Your task to perform on an android device: make emails show in primary in the gmail app Image 0: 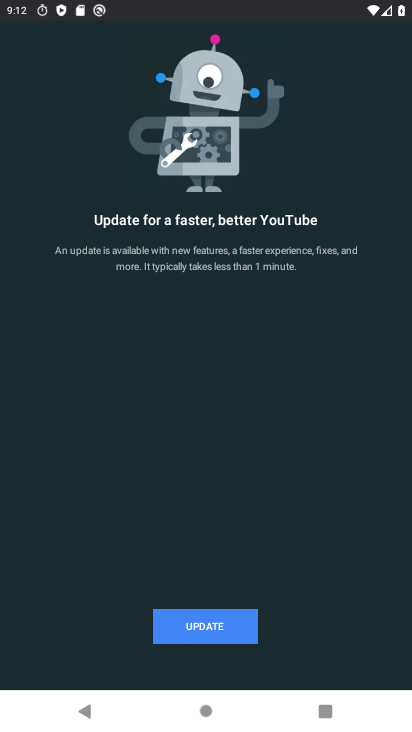
Step 0: press back button
Your task to perform on an android device: make emails show in primary in the gmail app Image 1: 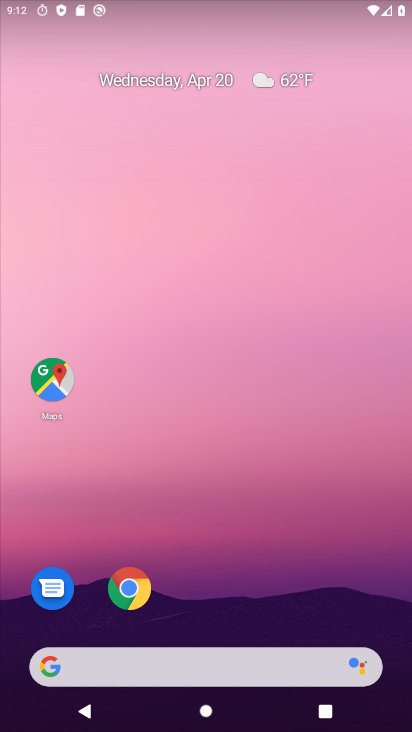
Step 1: drag from (202, 586) to (82, 20)
Your task to perform on an android device: make emails show in primary in the gmail app Image 2: 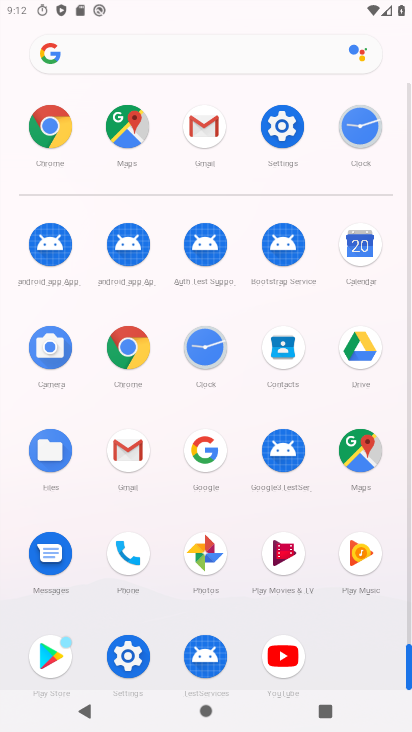
Step 2: drag from (2, 565) to (5, 285)
Your task to perform on an android device: make emails show in primary in the gmail app Image 3: 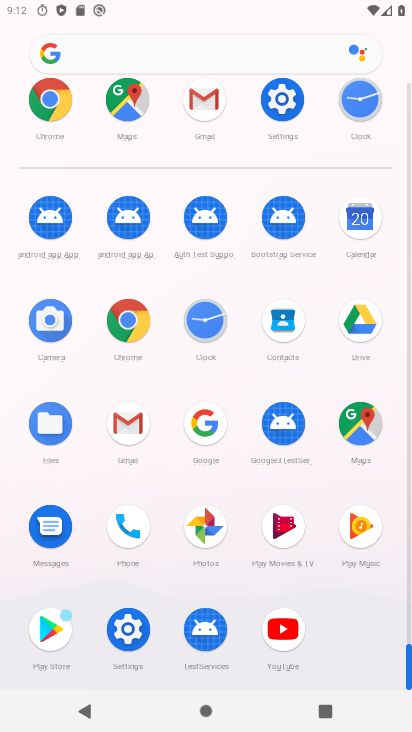
Step 3: click (205, 89)
Your task to perform on an android device: make emails show in primary in the gmail app Image 4: 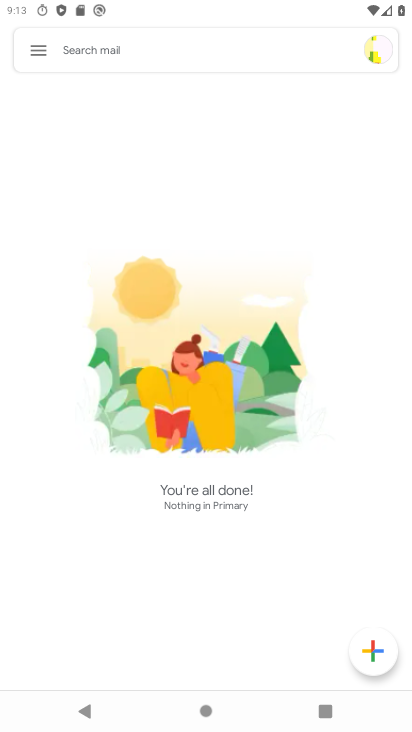
Step 4: click (24, 48)
Your task to perform on an android device: make emails show in primary in the gmail app Image 5: 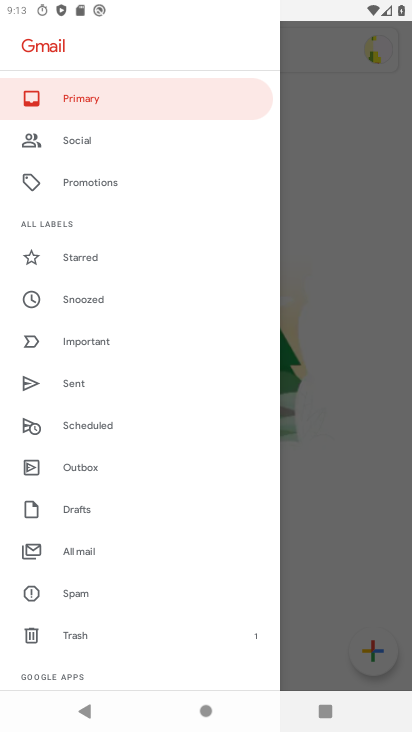
Step 5: drag from (101, 613) to (119, 310)
Your task to perform on an android device: make emails show in primary in the gmail app Image 6: 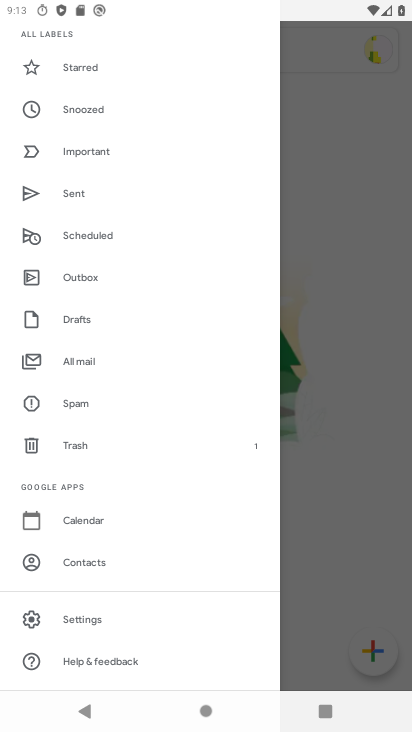
Step 6: click (69, 612)
Your task to perform on an android device: make emails show in primary in the gmail app Image 7: 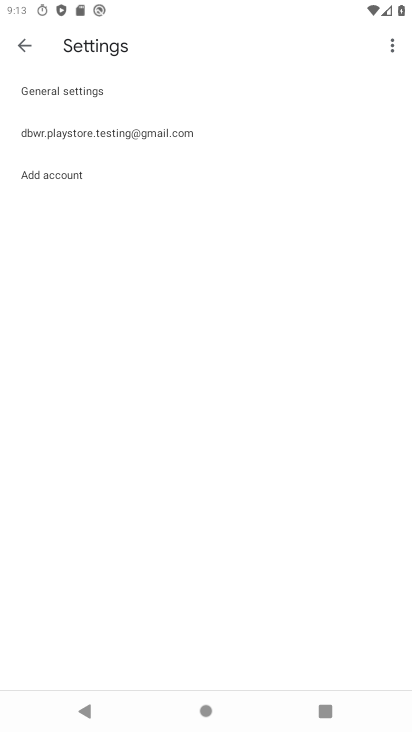
Step 7: click (108, 132)
Your task to perform on an android device: make emails show in primary in the gmail app Image 8: 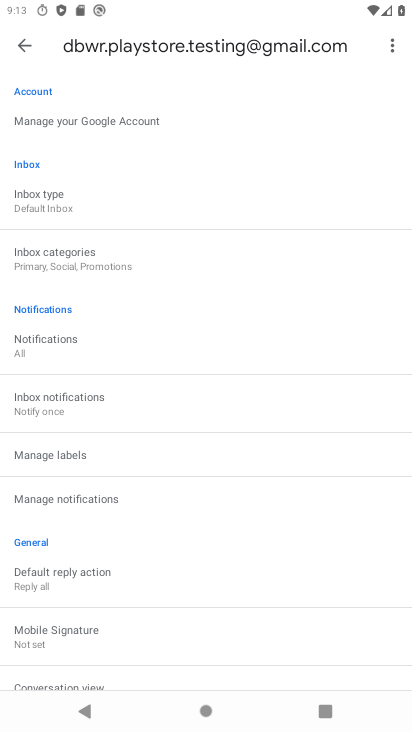
Step 8: click (75, 204)
Your task to perform on an android device: make emails show in primary in the gmail app Image 9: 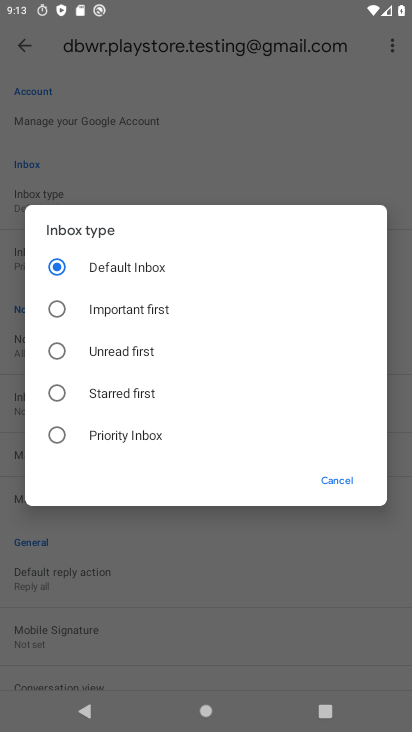
Step 9: click (118, 434)
Your task to perform on an android device: make emails show in primary in the gmail app Image 10: 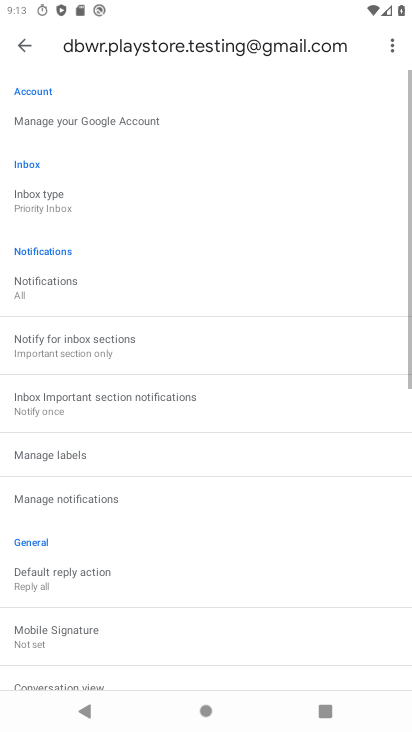
Step 10: click (75, 203)
Your task to perform on an android device: make emails show in primary in the gmail app Image 11: 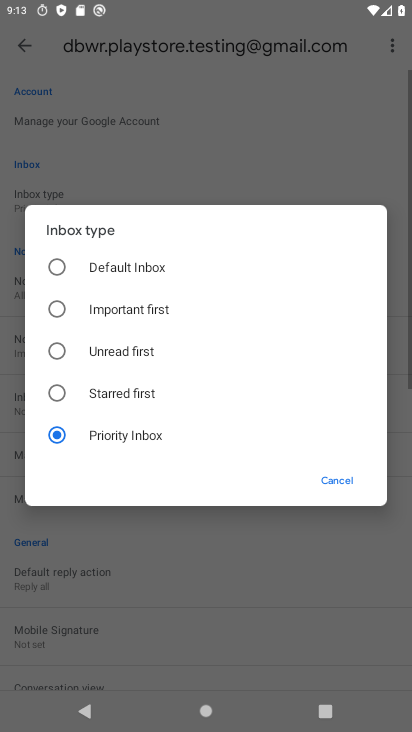
Step 11: click (128, 256)
Your task to perform on an android device: make emails show in primary in the gmail app Image 12: 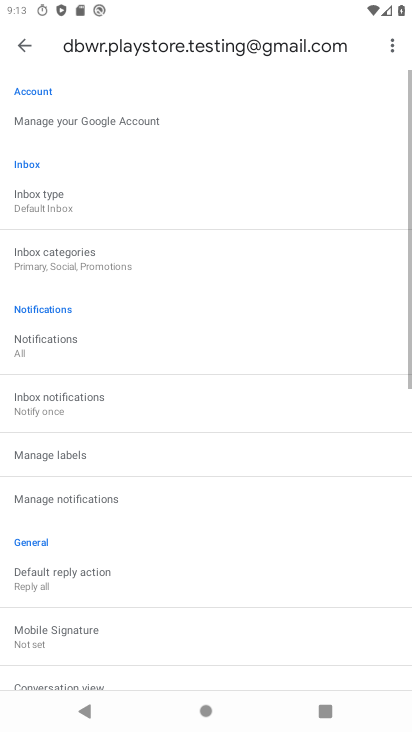
Step 12: click (110, 267)
Your task to perform on an android device: make emails show in primary in the gmail app Image 13: 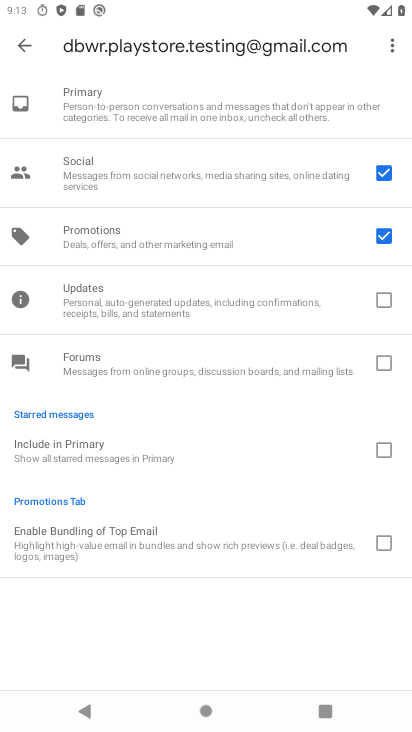
Step 13: click (379, 236)
Your task to perform on an android device: make emails show in primary in the gmail app Image 14: 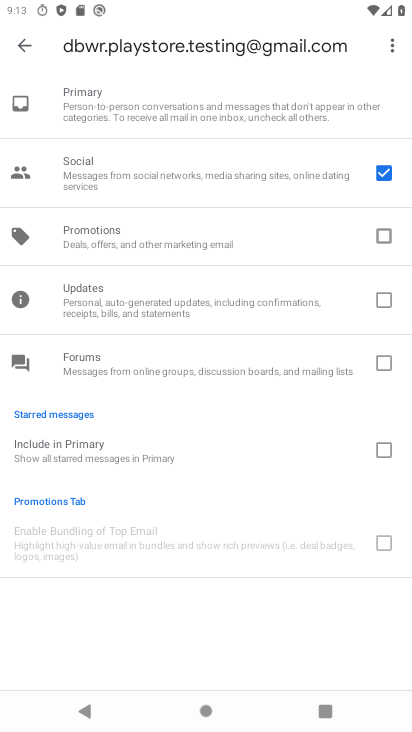
Step 14: click (382, 180)
Your task to perform on an android device: make emails show in primary in the gmail app Image 15: 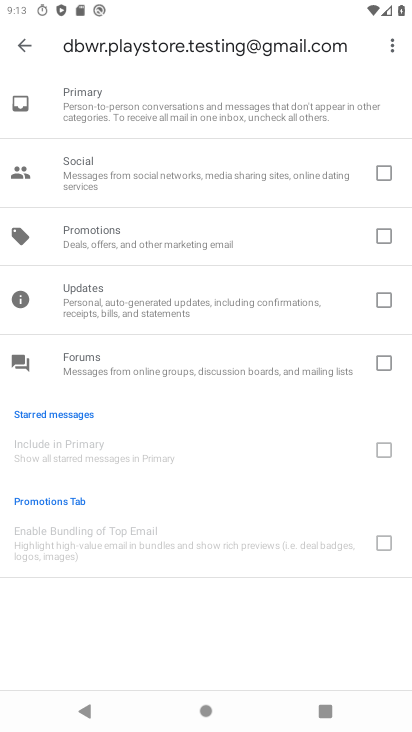
Step 15: click (31, 46)
Your task to perform on an android device: make emails show in primary in the gmail app Image 16: 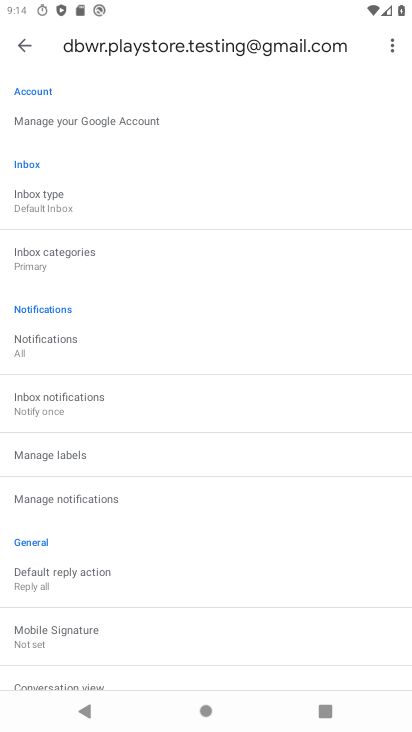
Step 16: task complete